Your task to perform on an android device: Open Google Chrome Image 0: 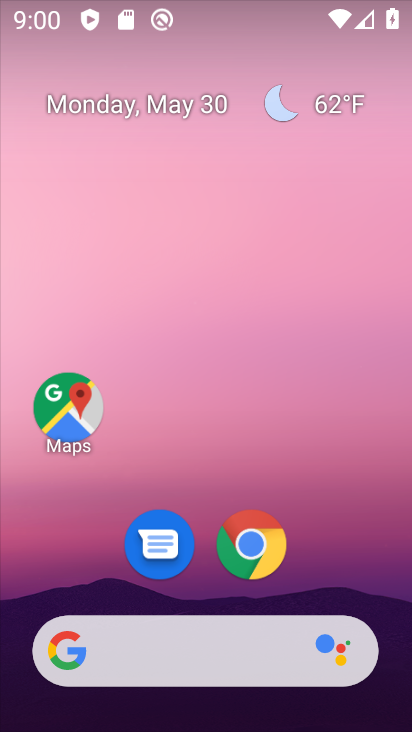
Step 0: click (254, 546)
Your task to perform on an android device: Open Google Chrome Image 1: 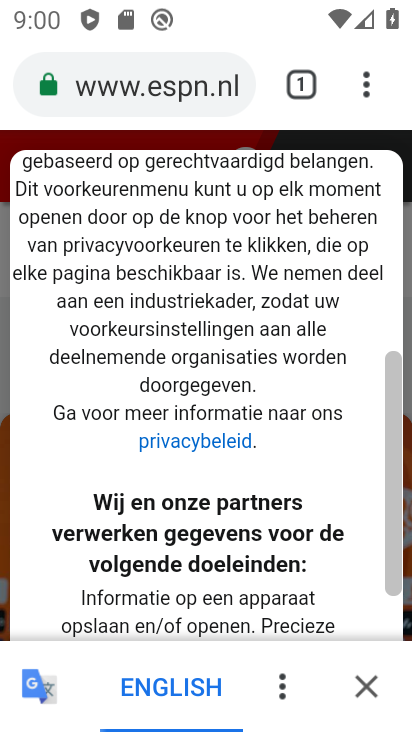
Step 1: task complete